Your task to perform on an android device: toggle wifi Image 0: 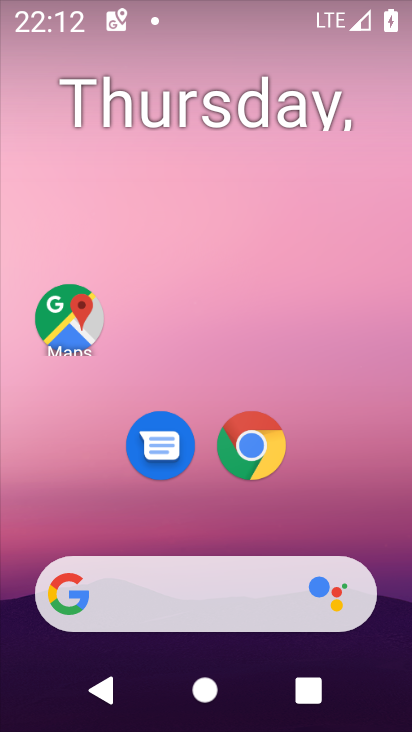
Step 0: drag from (255, 511) to (307, 198)
Your task to perform on an android device: toggle wifi Image 1: 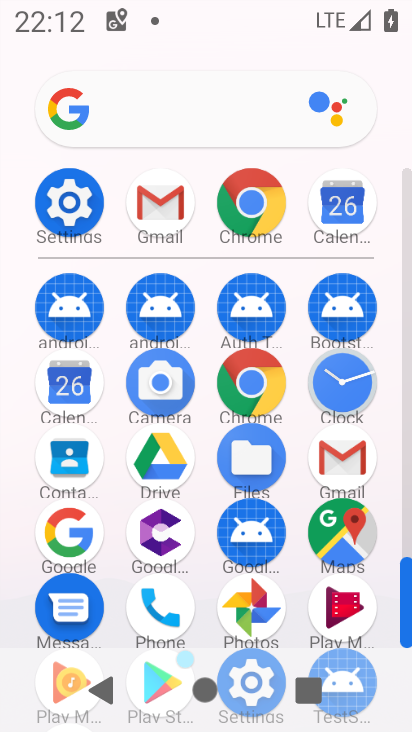
Step 1: drag from (204, 286) to (213, 118)
Your task to perform on an android device: toggle wifi Image 2: 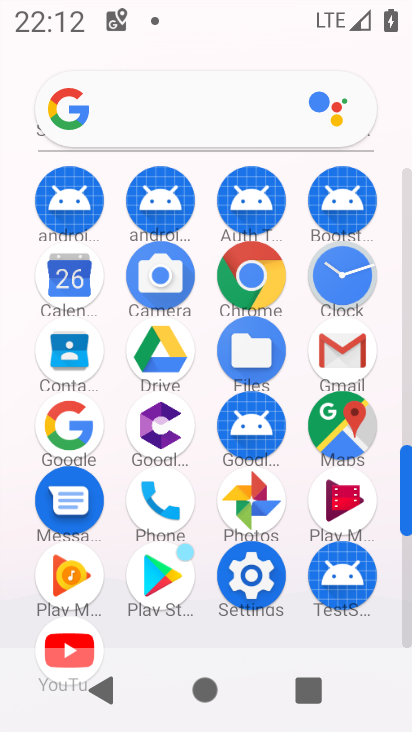
Step 2: click (249, 596)
Your task to perform on an android device: toggle wifi Image 3: 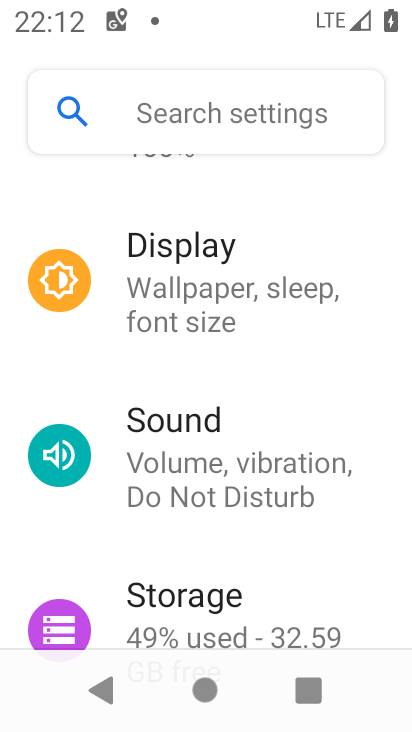
Step 3: drag from (198, 255) to (244, 620)
Your task to perform on an android device: toggle wifi Image 4: 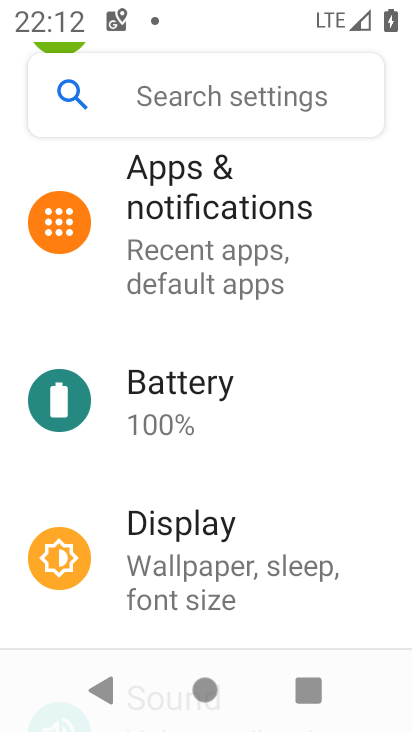
Step 4: drag from (269, 267) to (285, 624)
Your task to perform on an android device: toggle wifi Image 5: 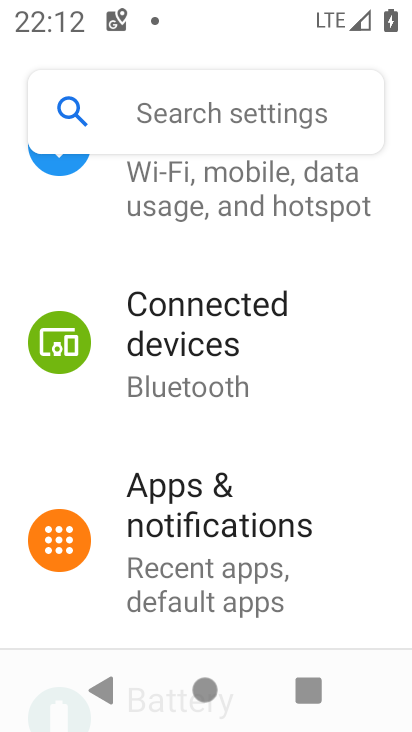
Step 5: drag from (285, 256) to (294, 554)
Your task to perform on an android device: toggle wifi Image 6: 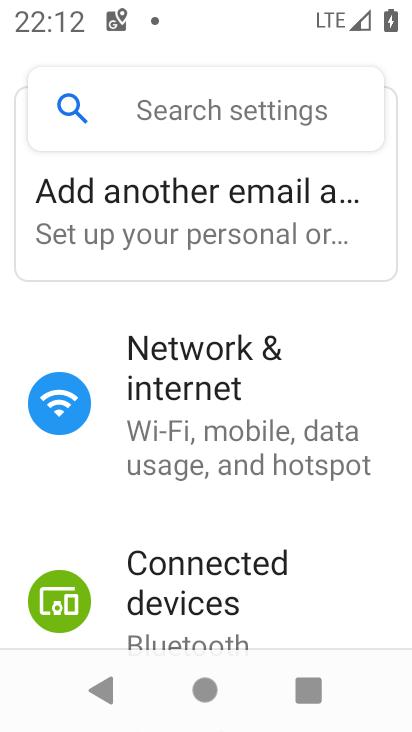
Step 6: click (249, 419)
Your task to perform on an android device: toggle wifi Image 7: 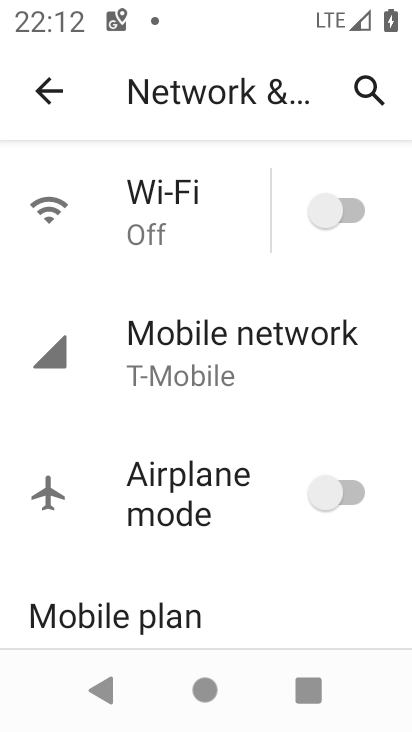
Step 7: click (333, 217)
Your task to perform on an android device: toggle wifi Image 8: 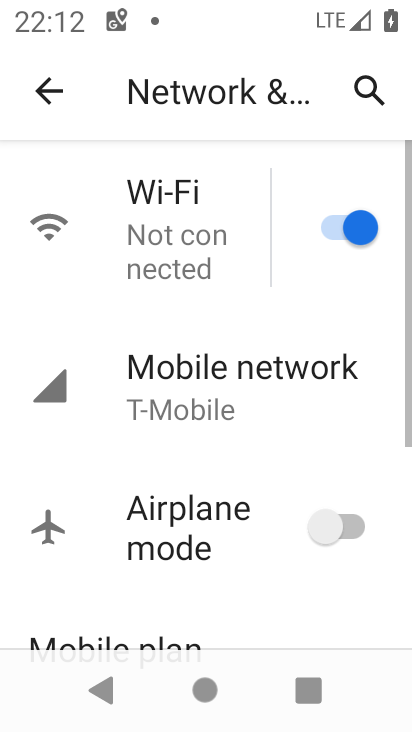
Step 8: task complete